Your task to perform on an android device: Open the stopwatch Image 0: 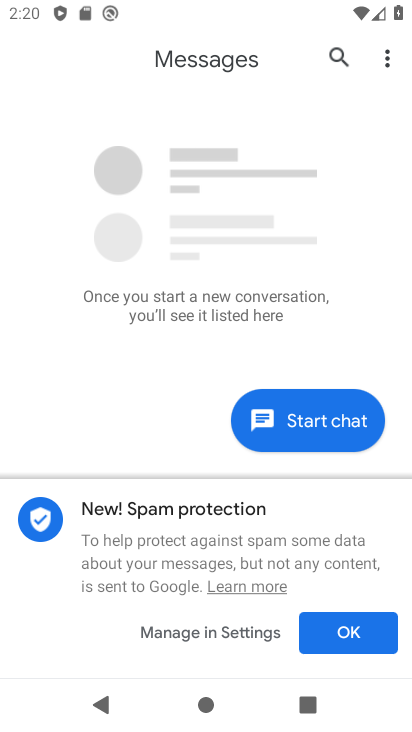
Step 0: press home button
Your task to perform on an android device: Open the stopwatch Image 1: 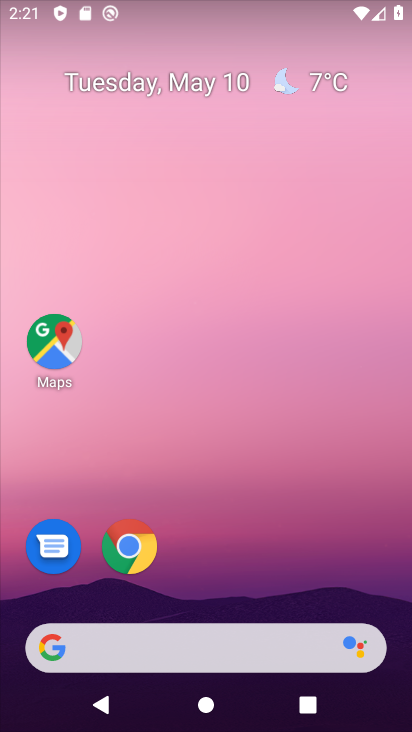
Step 1: drag from (312, 490) to (315, 59)
Your task to perform on an android device: Open the stopwatch Image 2: 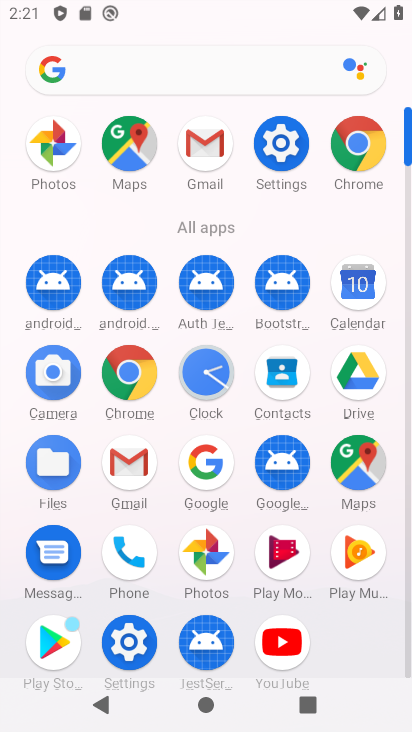
Step 2: click (204, 382)
Your task to perform on an android device: Open the stopwatch Image 3: 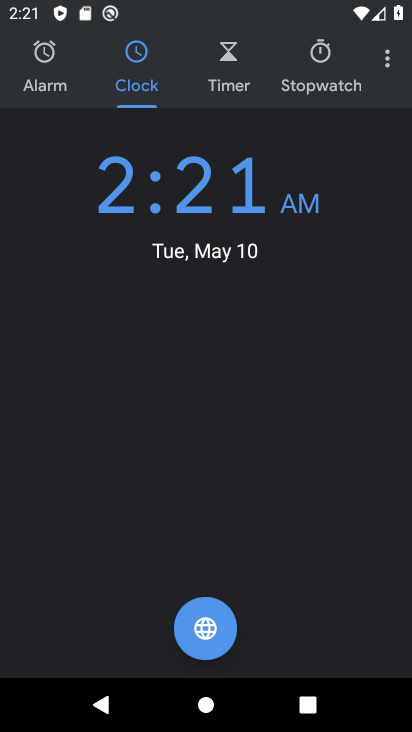
Step 3: click (334, 78)
Your task to perform on an android device: Open the stopwatch Image 4: 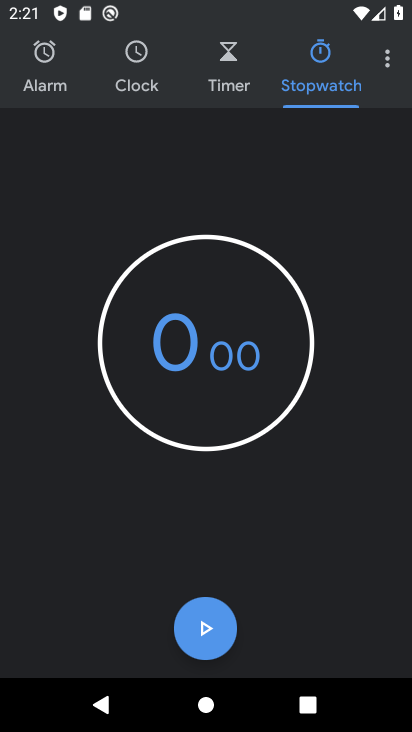
Step 4: task complete